Your task to perform on an android device: Open battery settings Image 0: 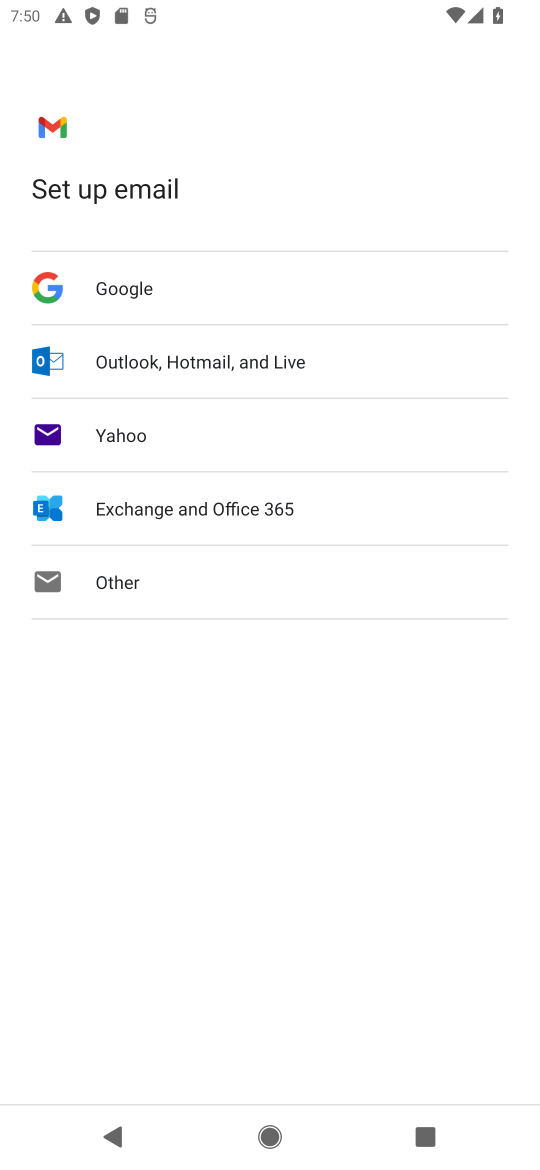
Step 0: drag from (416, 9) to (28, 368)
Your task to perform on an android device: Open battery settings Image 1: 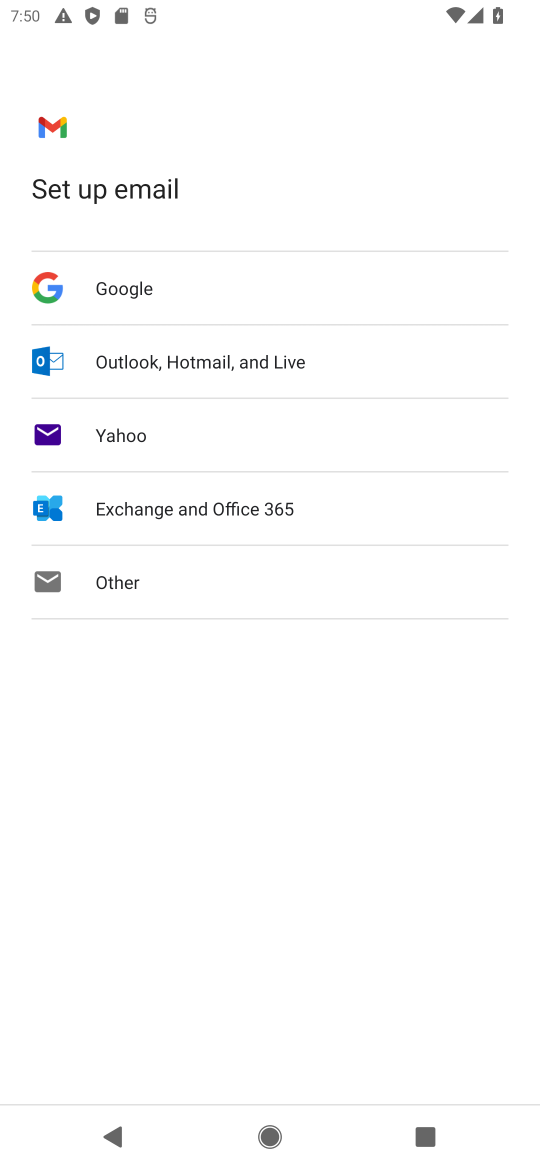
Step 1: drag from (225, 12) to (260, 1067)
Your task to perform on an android device: Open battery settings Image 2: 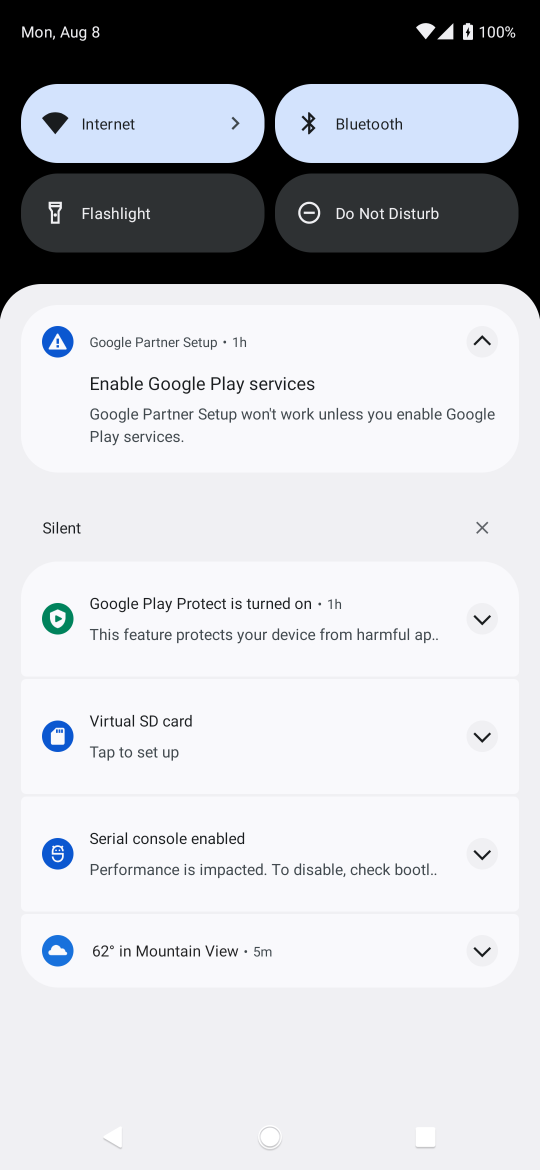
Step 2: drag from (237, 64) to (147, 1124)
Your task to perform on an android device: Open battery settings Image 3: 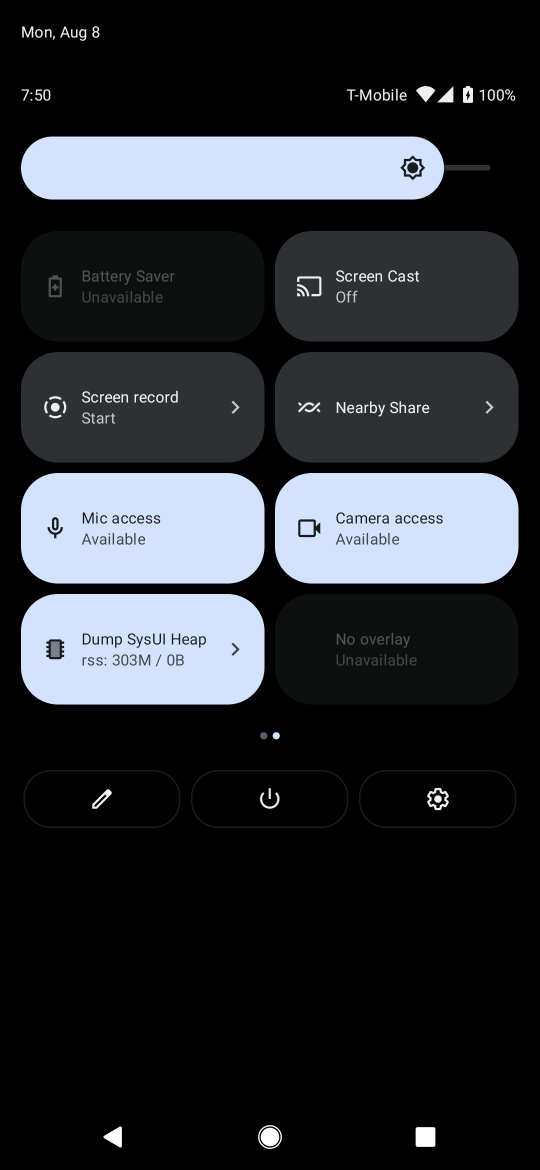
Step 3: click (87, 276)
Your task to perform on an android device: Open battery settings Image 4: 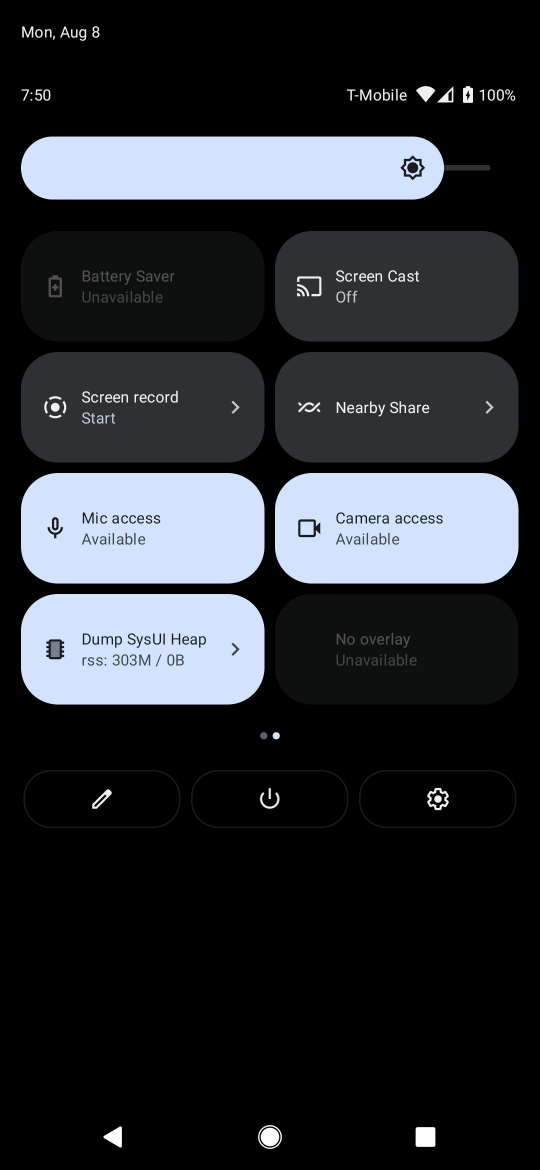
Step 4: click (87, 276)
Your task to perform on an android device: Open battery settings Image 5: 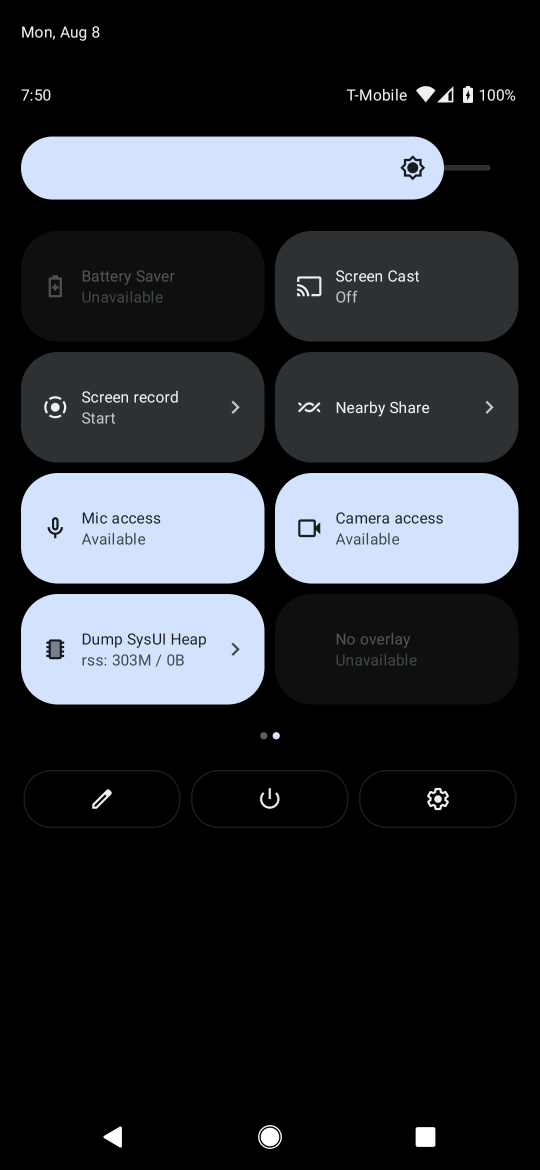
Step 5: click (87, 276)
Your task to perform on an android device: Open battery settings Image 6: 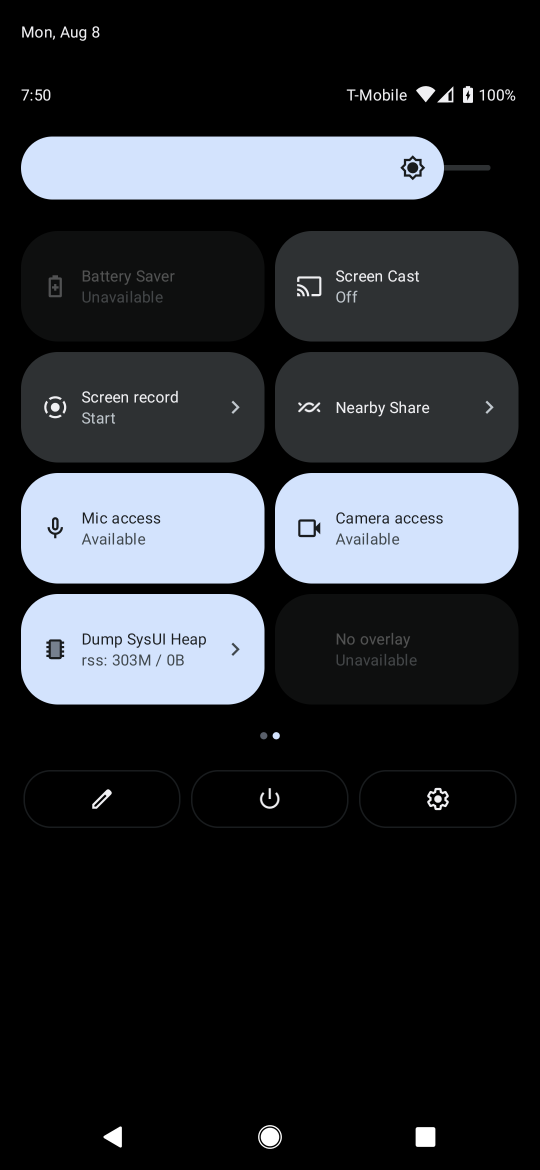
Step 6: click (87, 276)
Your task to perform on an android device: Open battery settings Image 7: 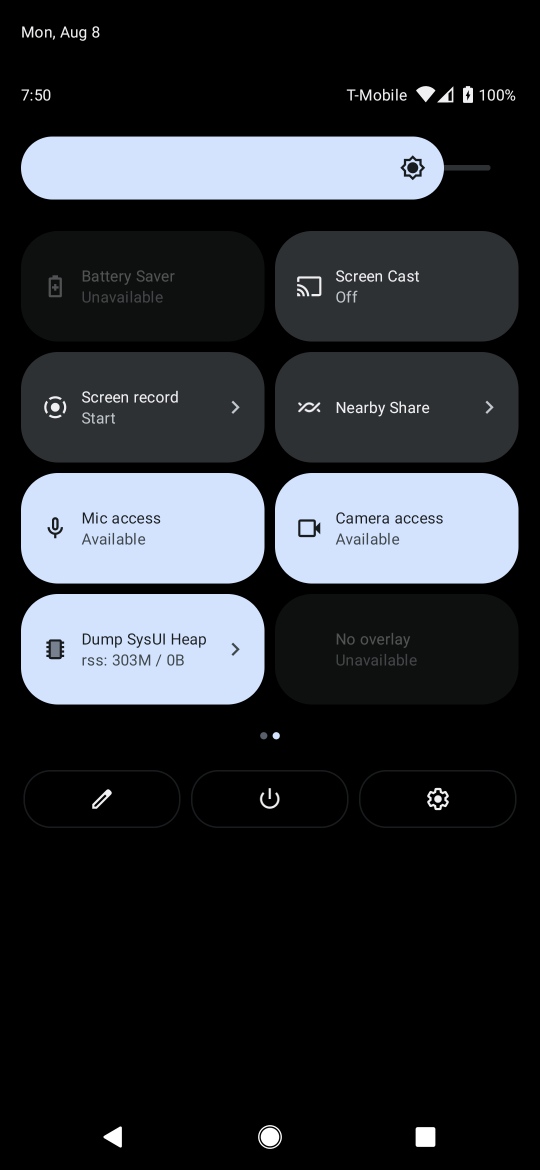
Step 7: click (87, 276)
Your task to perform on an android device: Open battery settings Image 8: 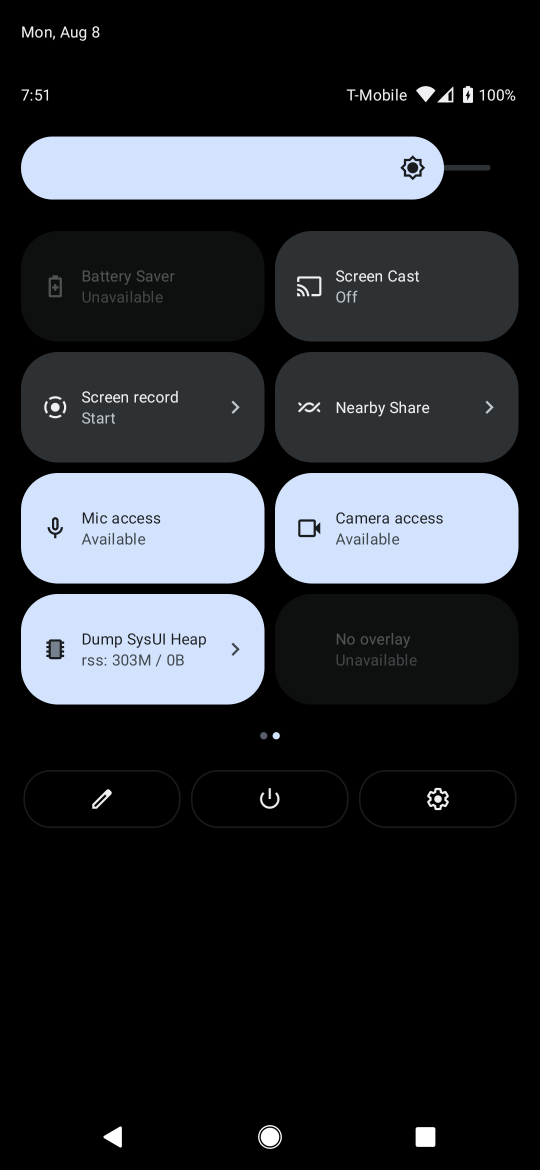
Step 8: click (176, 279)
Your task to perform on an android device: Open battery settings Image 9: 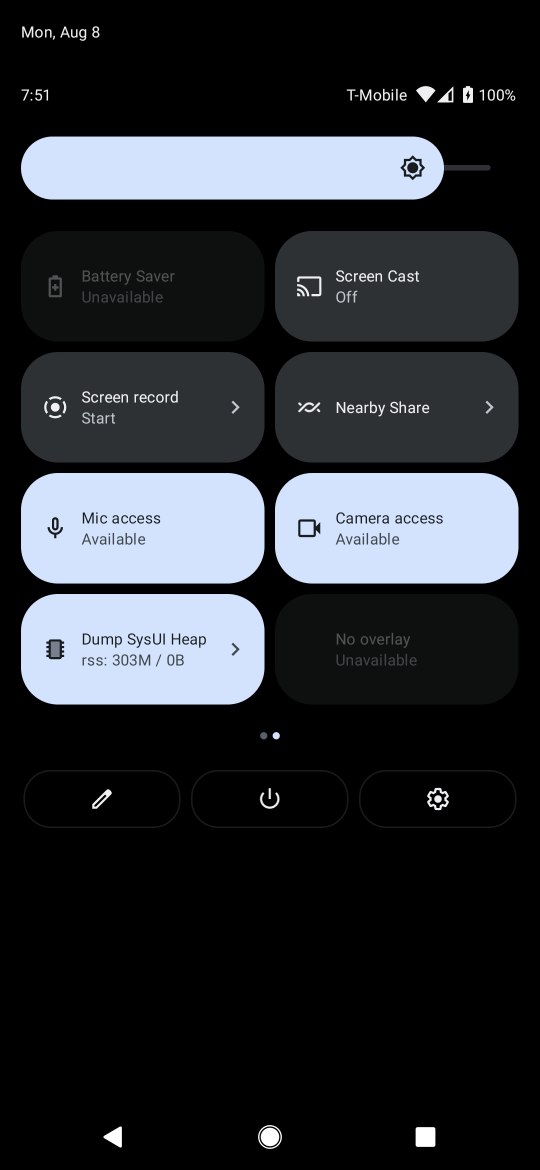
Step 9: click (445, 808)
Your task to perform on an android device: Open battery settings Image 10: 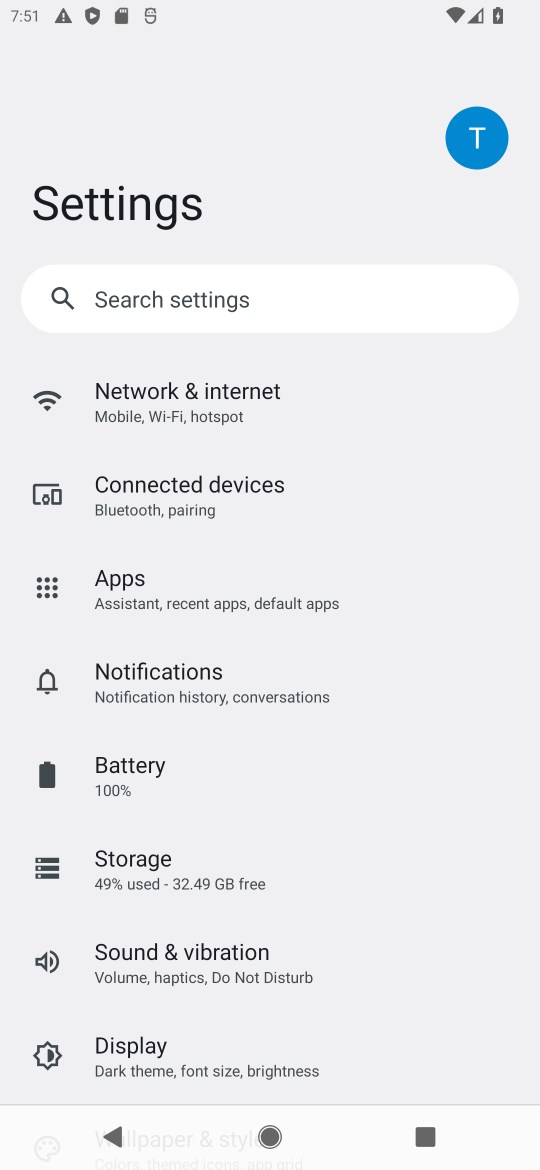
Step 10: click (188, 770)
Your task to perform on an android device: Open battery settings Image 11: 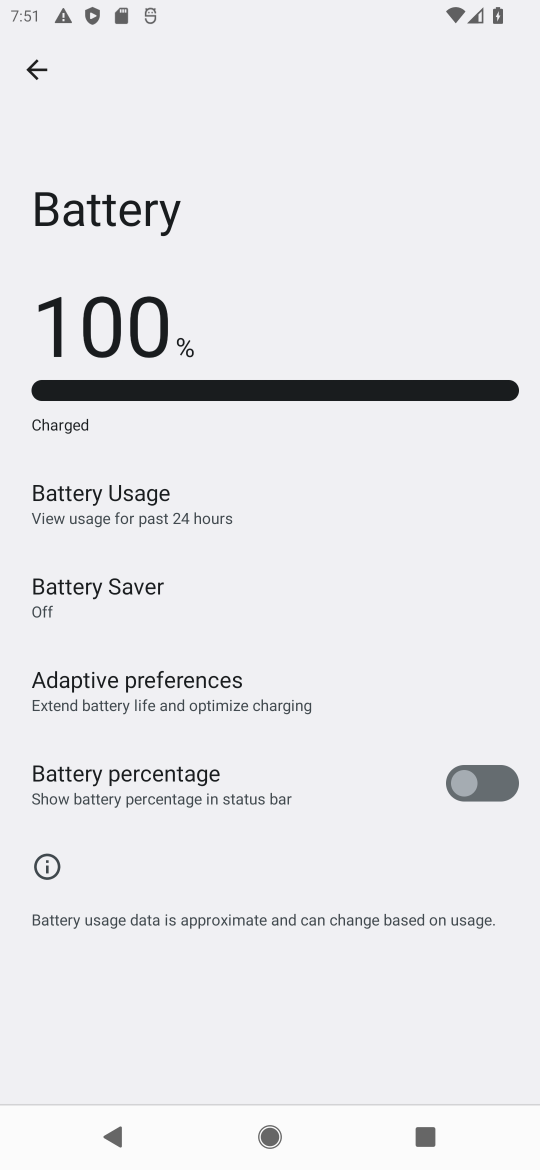
Step 11: task complete